Your task to perform on an android device: toggle notifications settings in the gmail app Image 0: 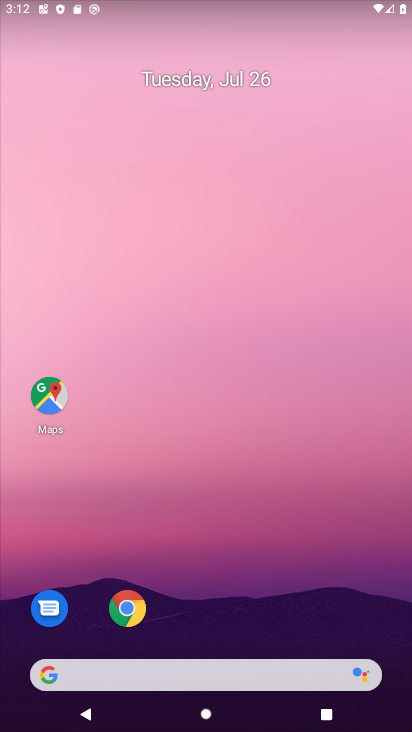
Step 0: drag from (269, 602) to (95, 0)
Your task to perform on an android device: toggle notifications settings in the gmail app Image 1: 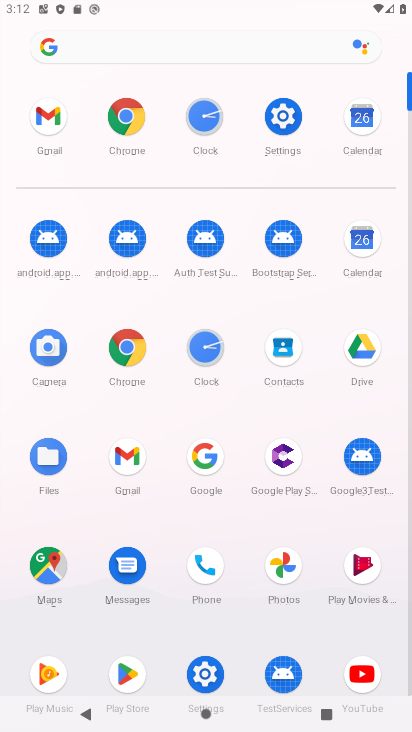
Step 1: click (53, 129)
Your task to perform on an android device: toggle notifications settings in the gmail app Image 2: 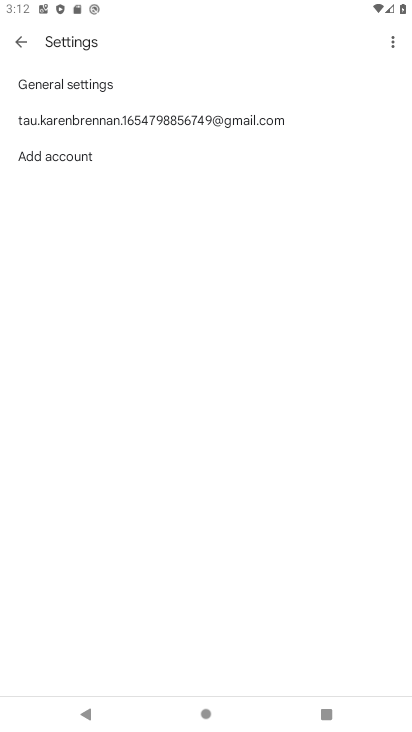
Step 2: click (57, 126)
Your task to perform on an android device: toggle notifications settings in the gmail app Image 3: 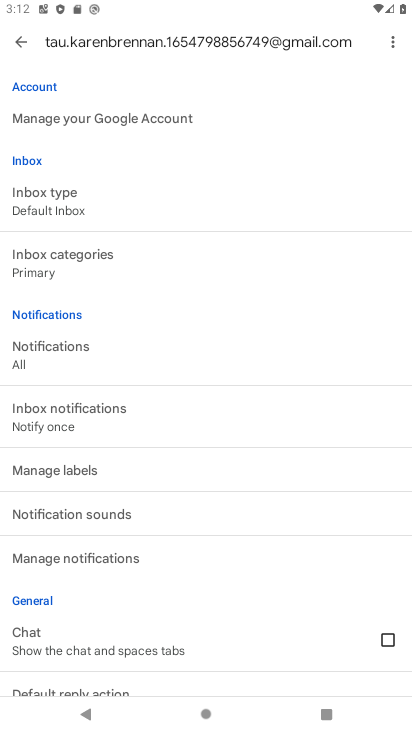
Step 3: task complete